Your task to perform on an android device: delete browsing data in the chrome app Image 0: 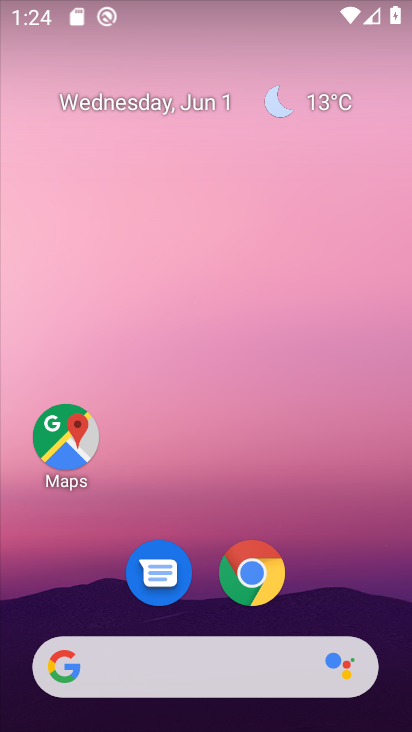
Step 0: click (260, 582)
Your task to perform on an android device: delete browsing data in the chrome app Image 1: 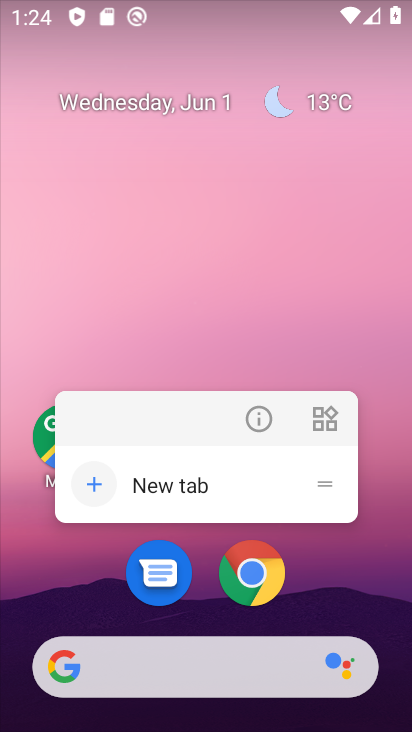
Step 1: click (256, 417)
Your task to perform on an android device: delete browsing data in the chrome app Image 2: 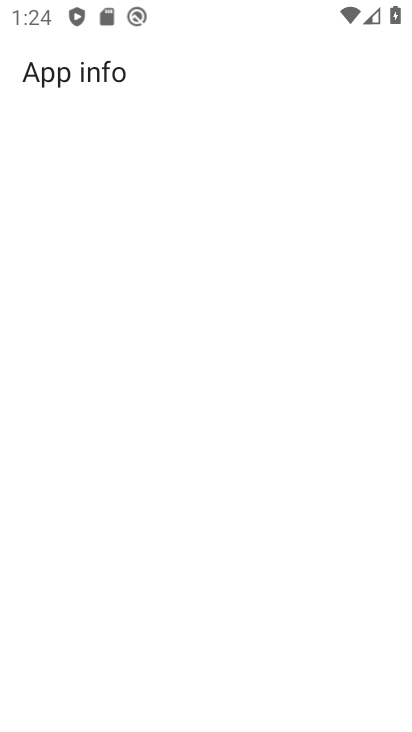
Step 2: drag from (190, 597) to (262, 93)
Your task to perform on an android device: delete browsing data in the chrome app Image 3: 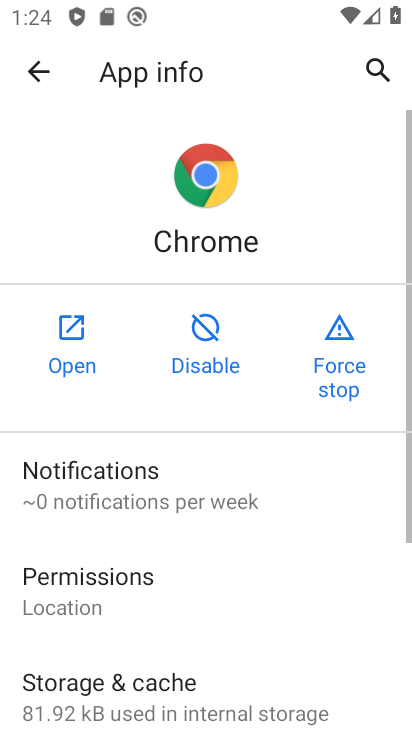
Step 3: click (63, 338)
Your task to perform on an android device: delete browsing data in the chrome app Image 4: 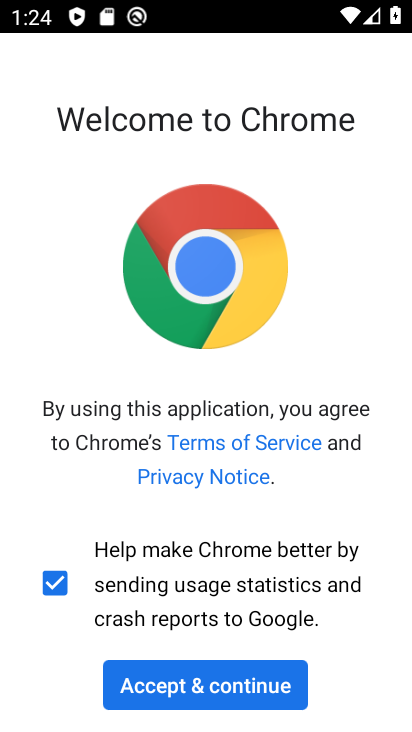
Step 4: click (200, 701)
Your task to perform on an android device: delete browsing data in the chrome app Image 5: 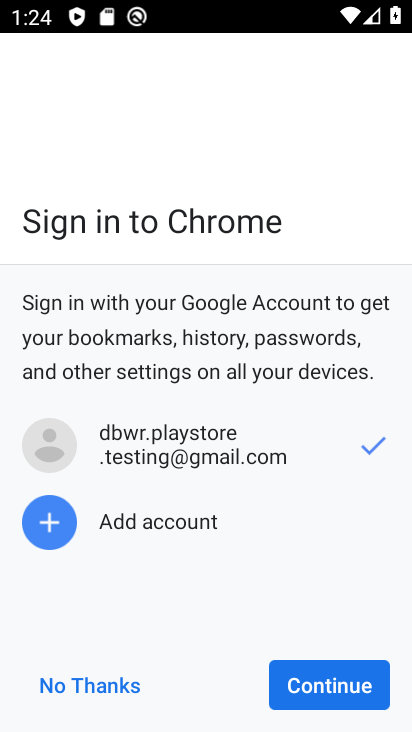
Step 5: click (311, 691)
Your task to perform on an android device: delete browsing data in the chrome app Image 6: 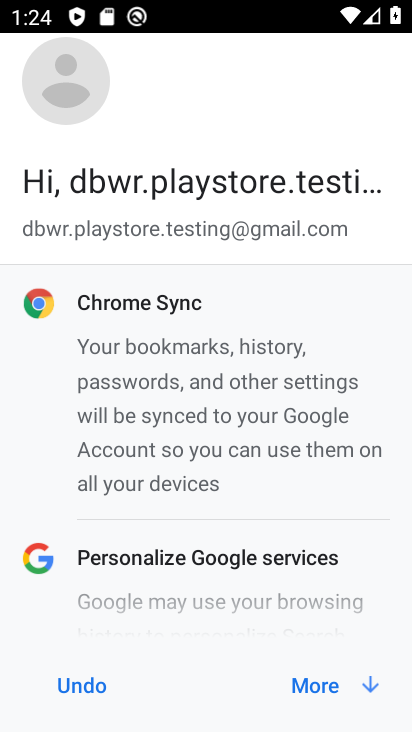
Step 6: click (311, 675)
Your task to perform on an android device: delete browsing data in the chrome app Image 7: 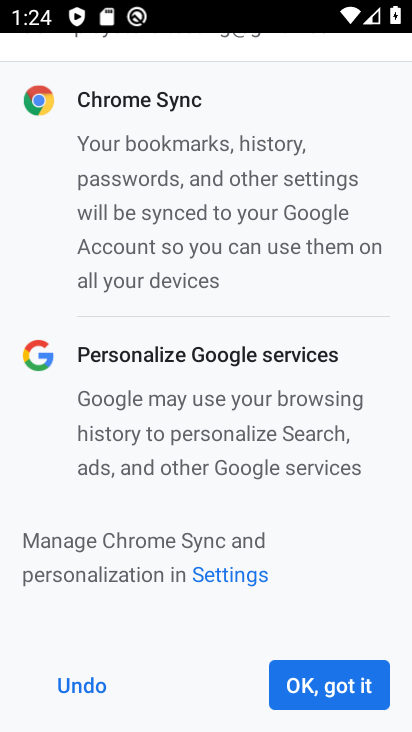
Step 7: click (298, 688)
Your task to perform on an android device: delete browsing data in the chrome app Image 8: 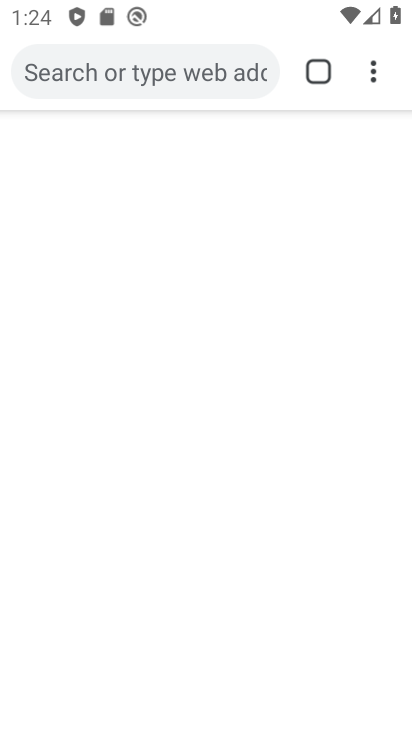
Step 8: task complete